Your task to perform on an android device: Go to display settings Image 0: 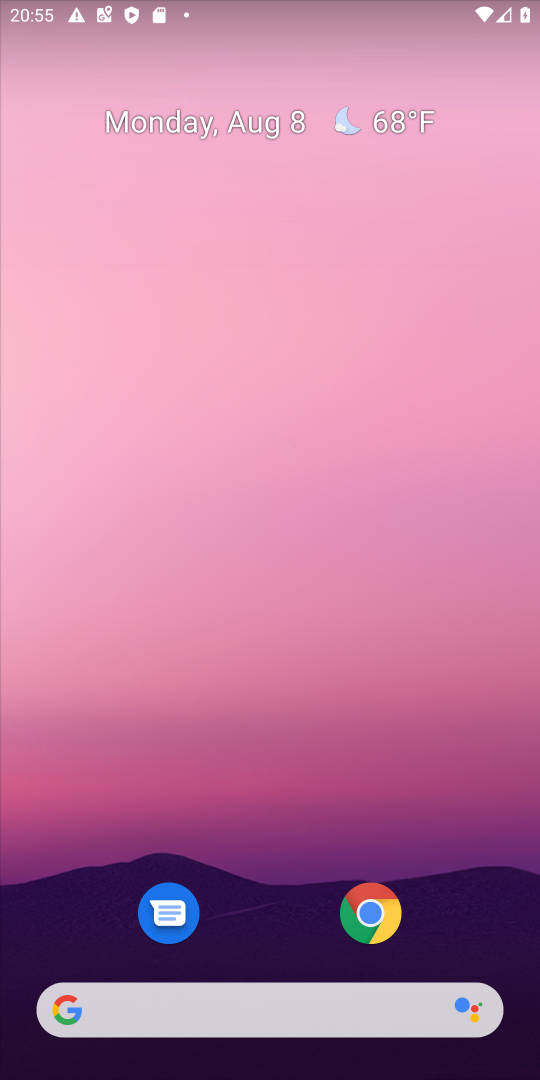
Step 0: drag from (214, 1006) to (256, 293)
Your task to perform on an android device: Go to display settings Image 1: 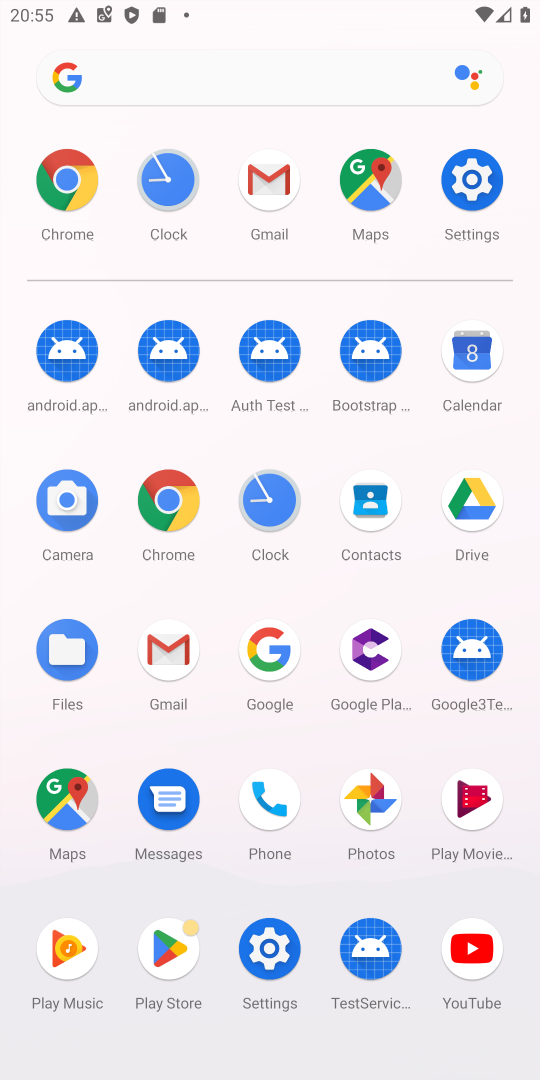
Step 1: click (473, 177)
Your task to perform on an android device: Go to display settings Image 2: 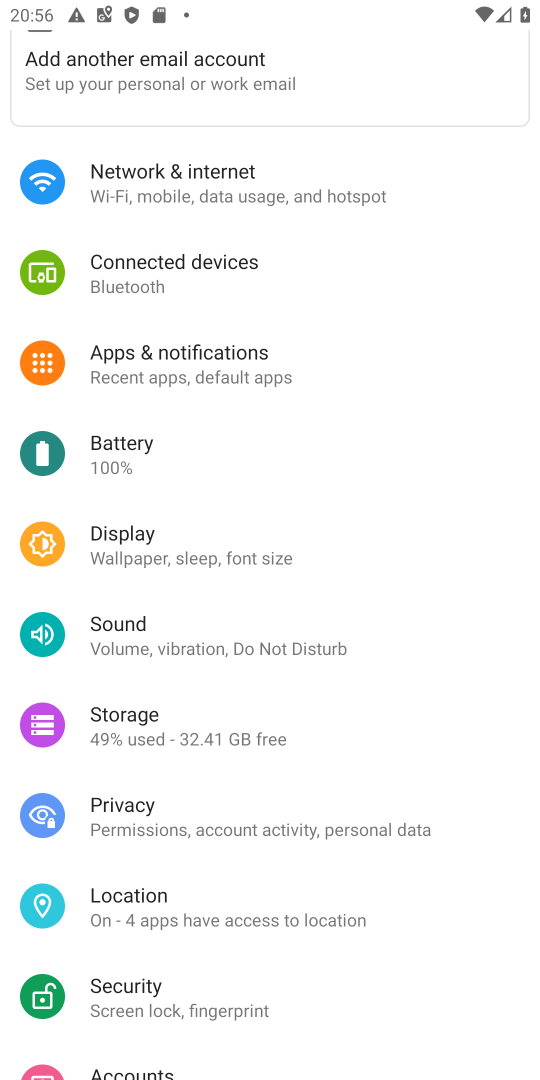
Step 2: click (222, 559)
Your task to perform on an android device: Go to display settings Image 3: 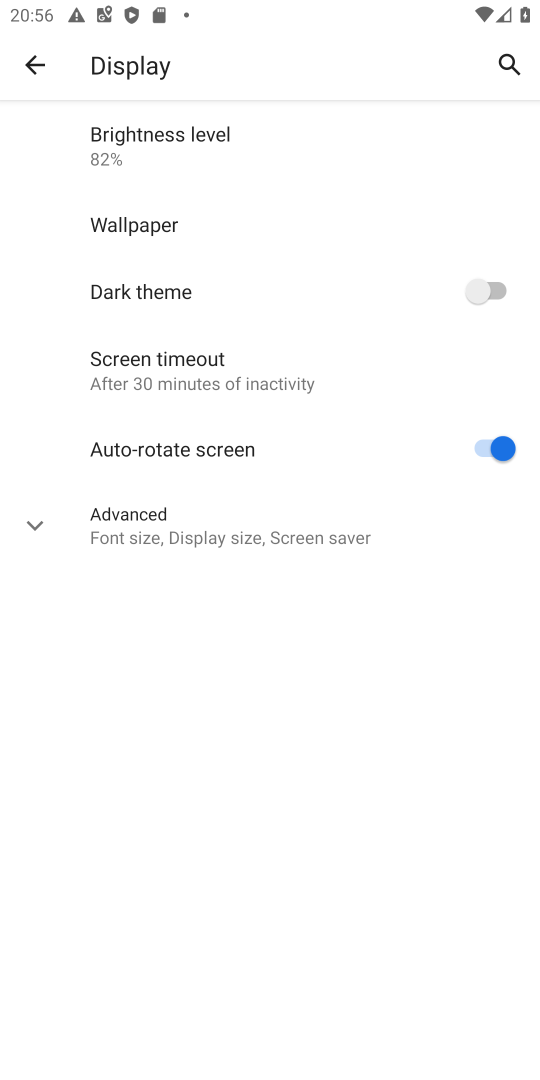
Step 3: task complete